Your task to perform on an android device: Open Maps and search for coffee Image 0: 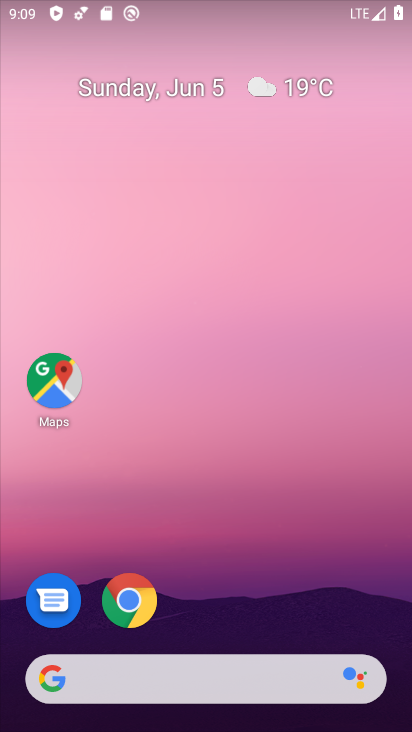
Step 0: drag from (219, 627) to (106, 222)
Your task to perform on an android device: Open Maps and search for coffee Image 1: 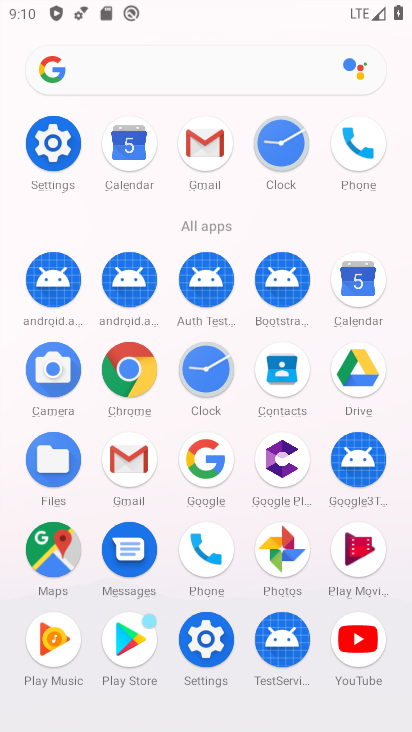
Step 1: click (54, 565)
Your task to perform on an android device: Open Maps and search for coffee Image 2: 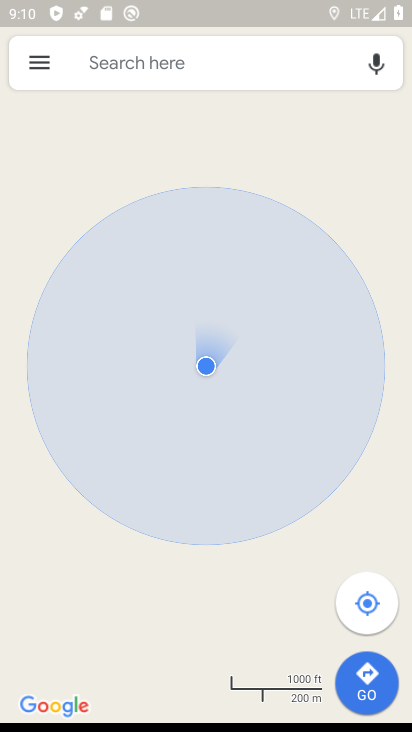
Step 2: click (185, 62)
Your task to perform on an android device: Open Maps and search for coffee Image 3: 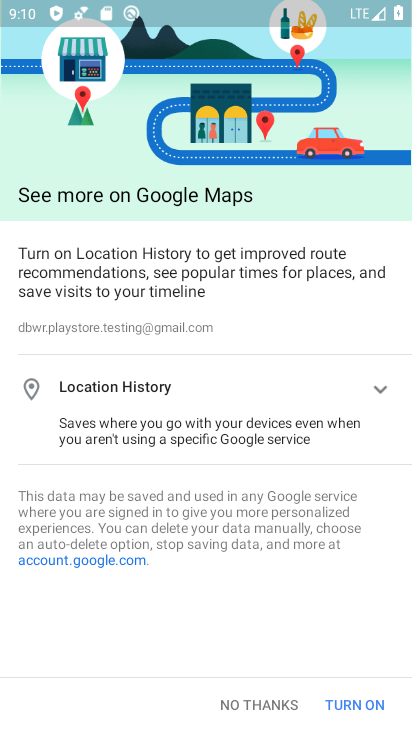
Step 3: click (270, 706)
Your task to perform on an android device: Open Maps and search for coffee Image 4: 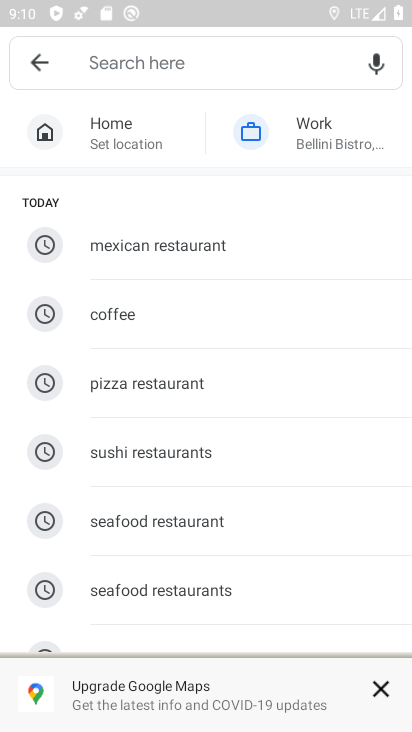
Step 4: click (244, 311)
Your task to perform on an android device: Open Maps and search for coffee Image 5: 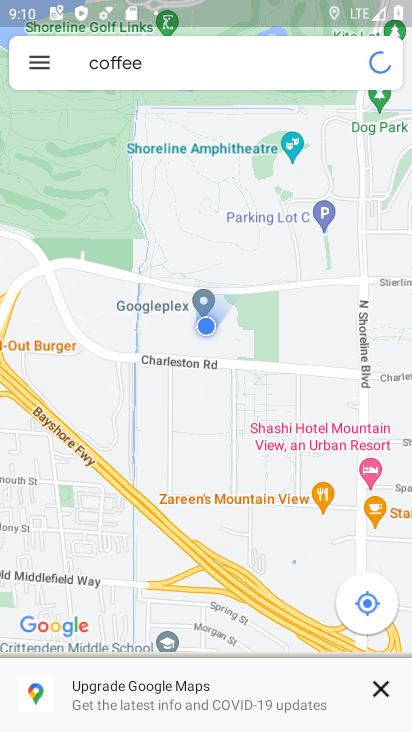
Step 5: task complete